Your task to perform on an android device: toggle show notifications on the lock screen Image 0: 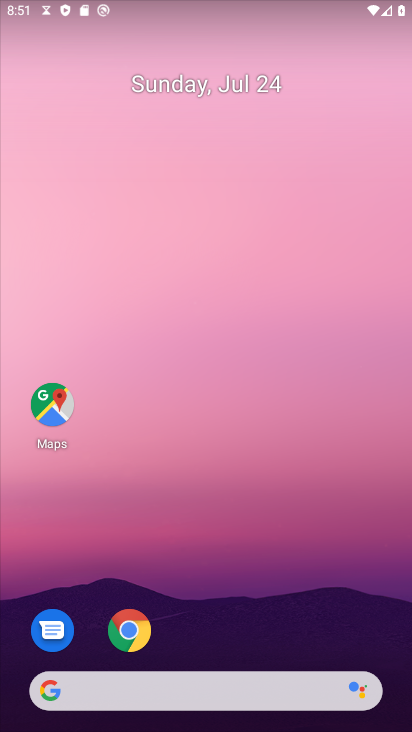
Step 0: drag from (365, 645) to (382, 111)
Your task to perform on an android device: toggle show notifications on the lock screen Image 1: 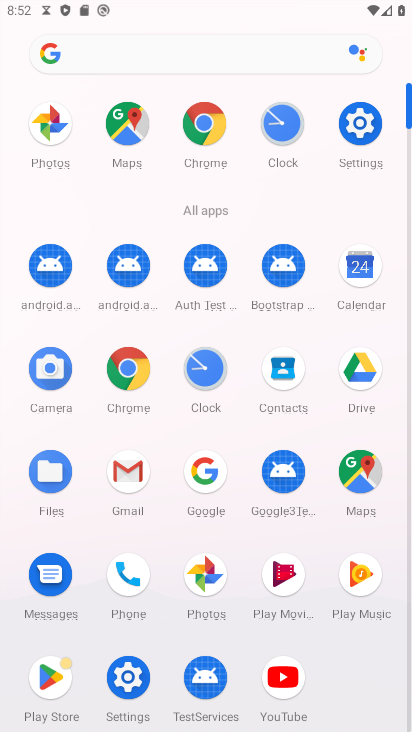
Step 1: click (347, 124)
Your task to perform on an android device: toggle show notifications on the lock screen Image 2: 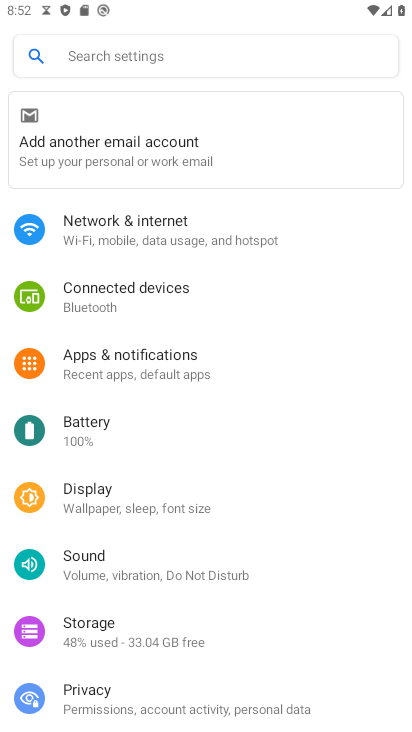
Step 2: click (360, 122)
Your task to perform on an android device: toggle show notifications on the lock screen Image 3: 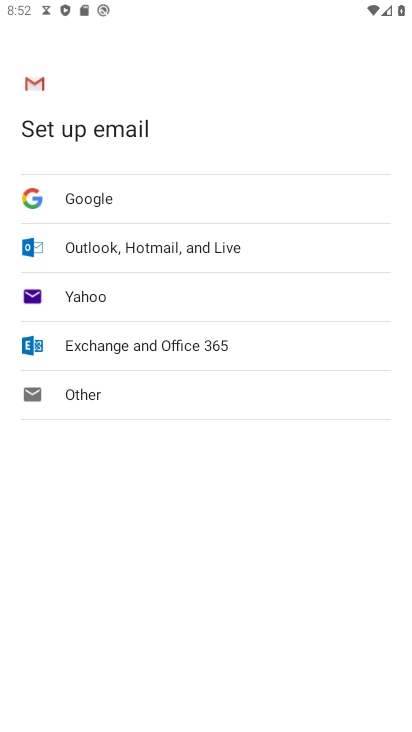
Step 3: press back button
Your task to perform on an android device: toggle show notifications on the lock screen Image 4: 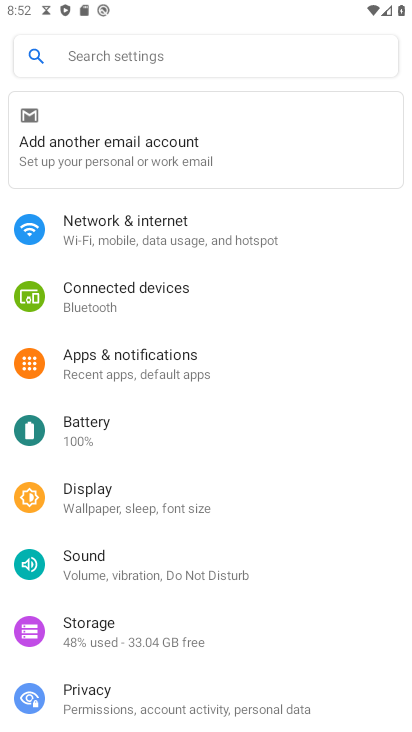
Step 4: click (286, 375)
Your task to perform on an android device: toggle show notifications on the lock screen Image 5: 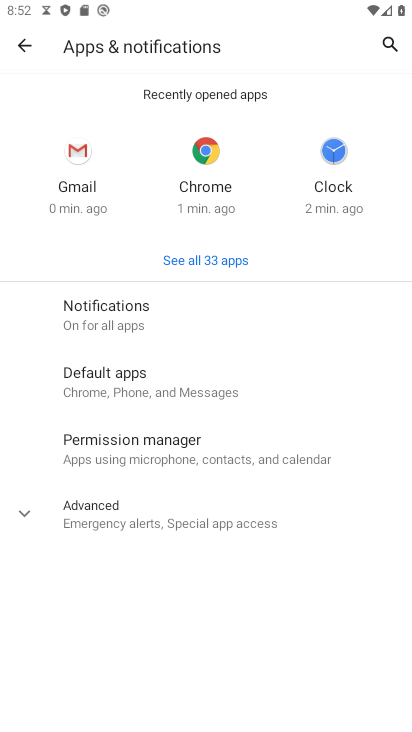
Step 5: click (228, 301)
Your task to perform on an android device: toggle show notifications on the lock screen Image 6: 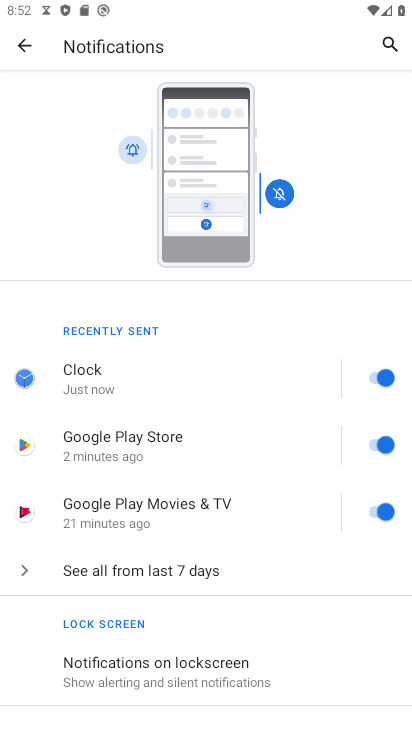
Step 6: drag from (244, 545) to (249, 327)
Your task to perform on an android device: toggle show notifications on the lock screen Image 7: 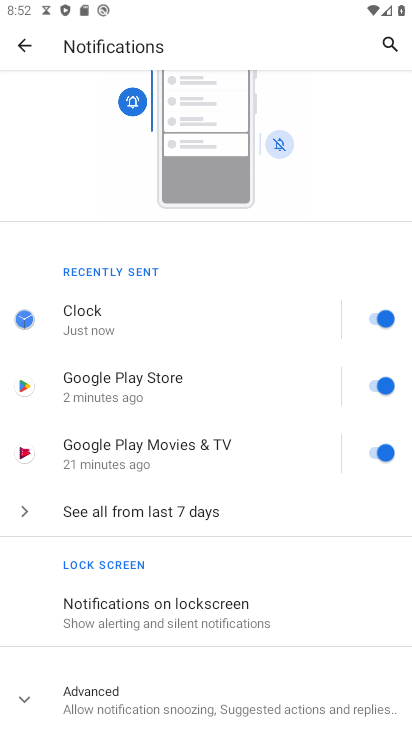
Step 7: click (263, 584)
Your task to perform on an android device: toggle show notifications on the lock screen Image 8: 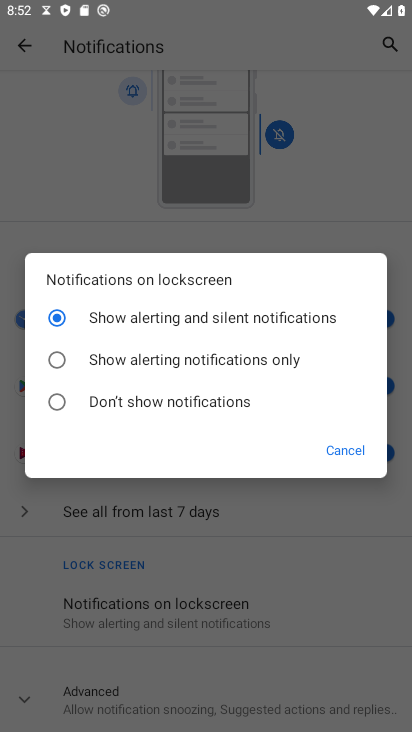
Step 8: click (280, 356)
Your task to perform on an android device: toggle show notifications on the lock screen Image 9: 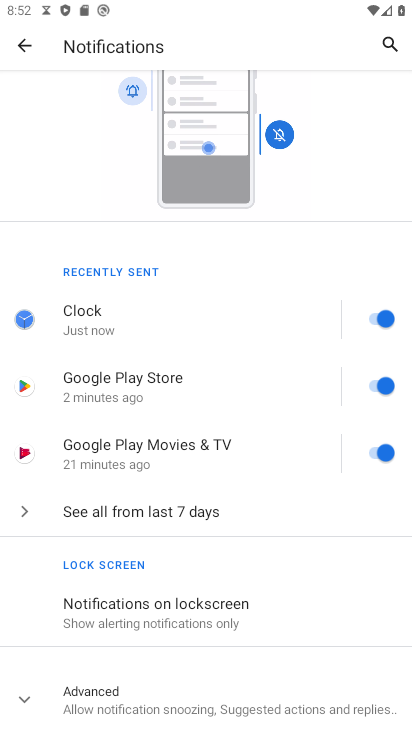
Step 9: task complete